Your task to perform on an android device: Search for "logitech g pro" on target.com, select the first entry, and add it to the cart. Image 0: 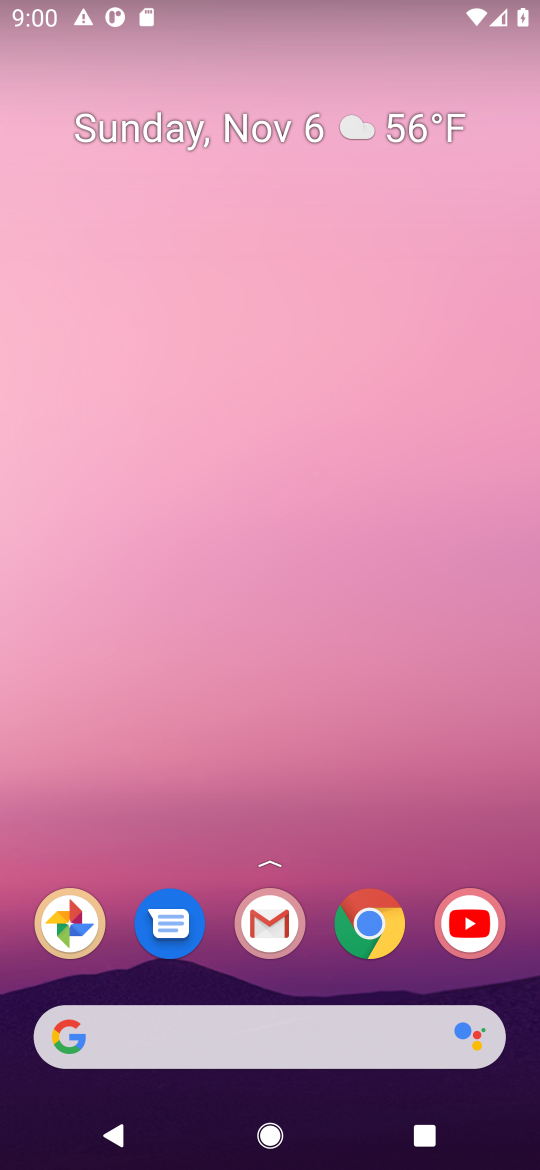
Step 0: click (378, 934)
Your task to perform on an android device: Search for "logitech g pro" on target.com, select the first entry, and add it to the cart. Image 1: 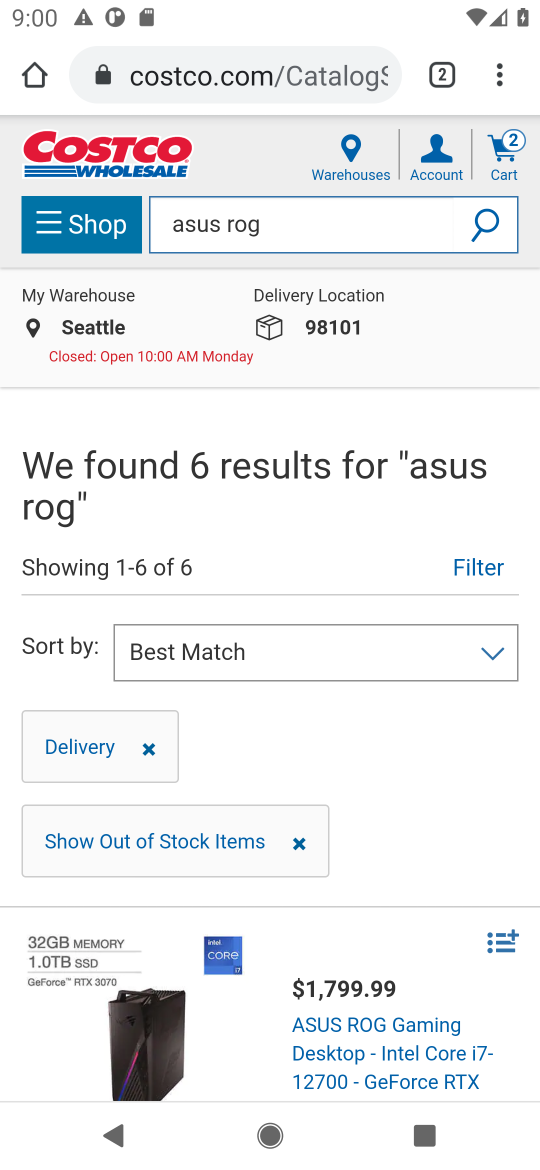
Step 1: drag from (384, 775) to (371, 573)
Your task to perform on an android device: Search for "logitech g pro" on target.com, select the first entry, and add it to the cart. Image 2: 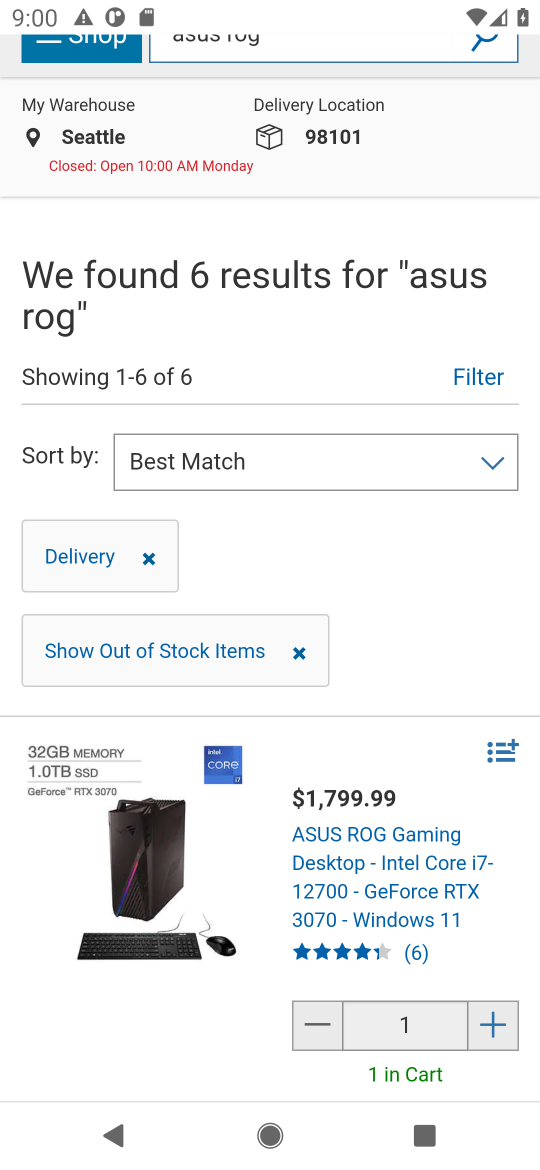
Step 2: click (376, 913)
Your task to perform on an android device: Search for "logitech g pro" on target.com, select the first entry, and add it to the cart. Image 3: 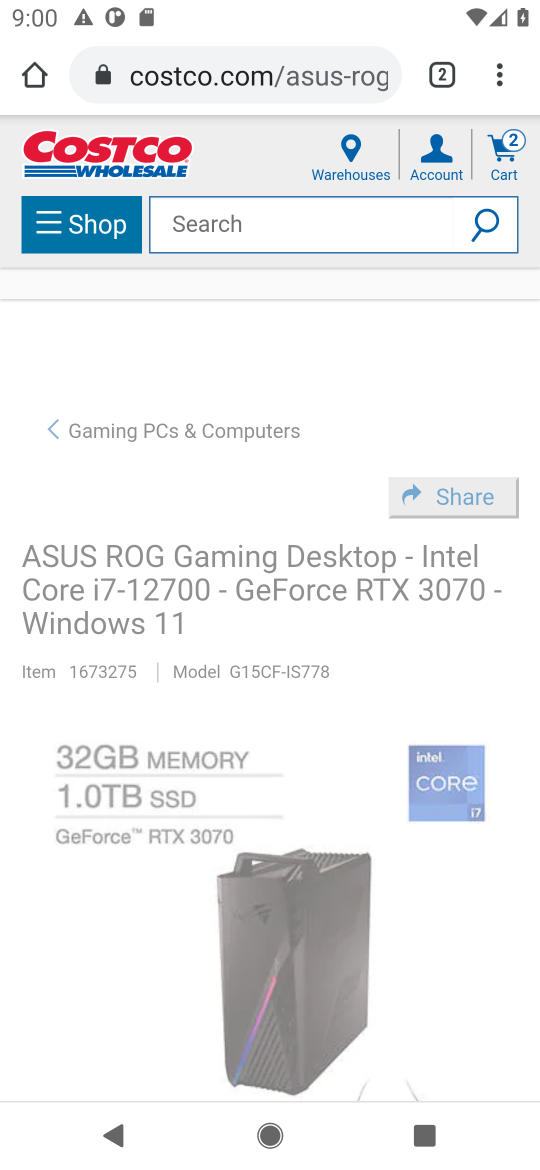
Step 3: click (286, 74)
Your task to perform on an android device: Search for "logitech g pro" on target.com, select the first entry, and add it to the cart. Image 4: 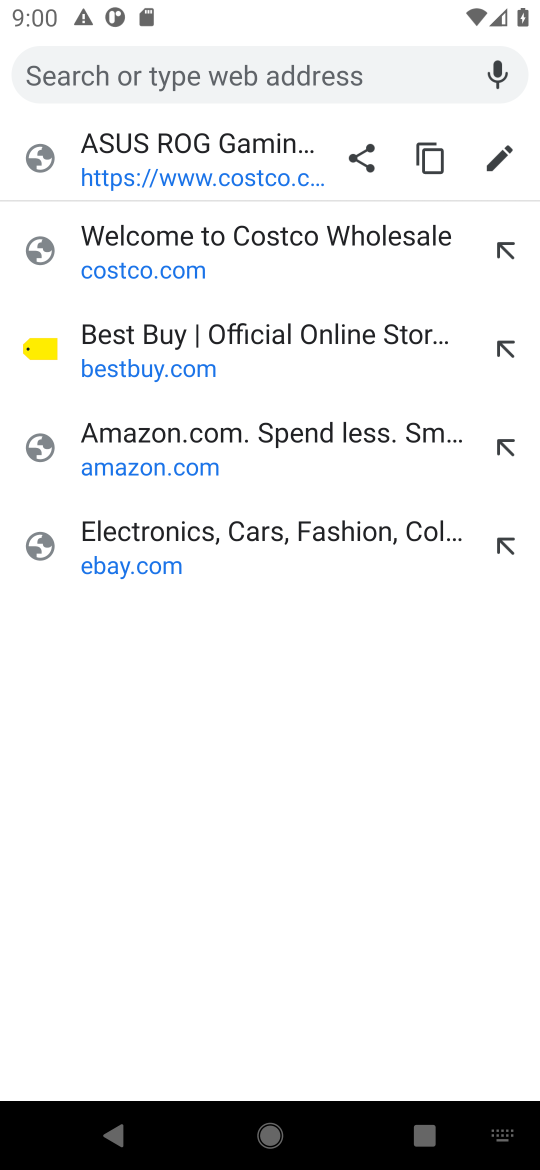
Step 4: type "target.com"
Your task to perform on an android device: Search for "logitech g pro" on target.com, select the first entry, and add it to the cart. Image 5: 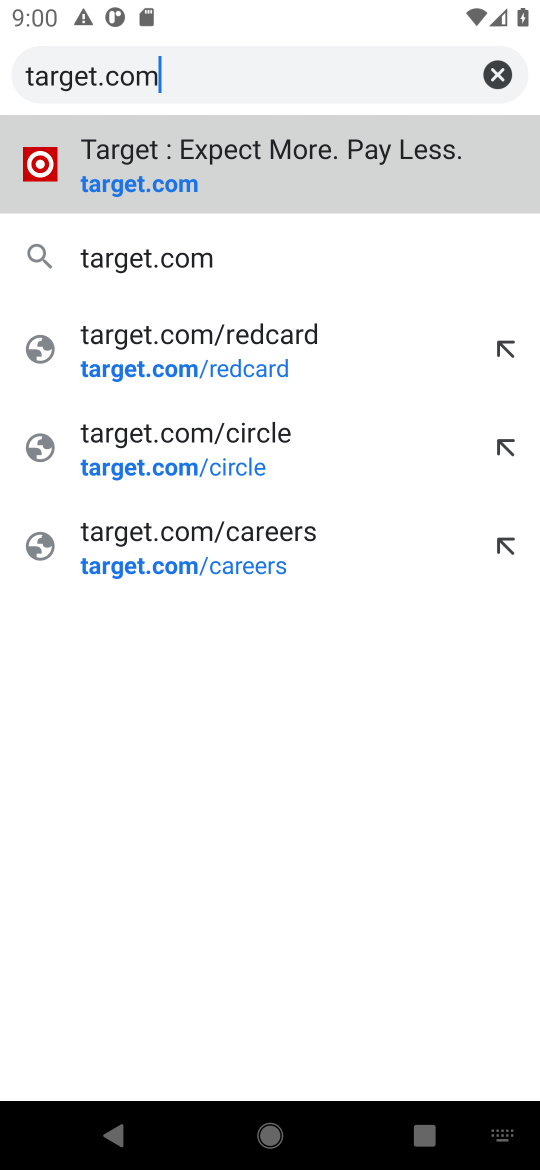
Step 5: click (108, 191)
Your task to perform on an android device: Search for "logitech g pro" on target.com, select the first entry, and add it to the cart. Image 6: 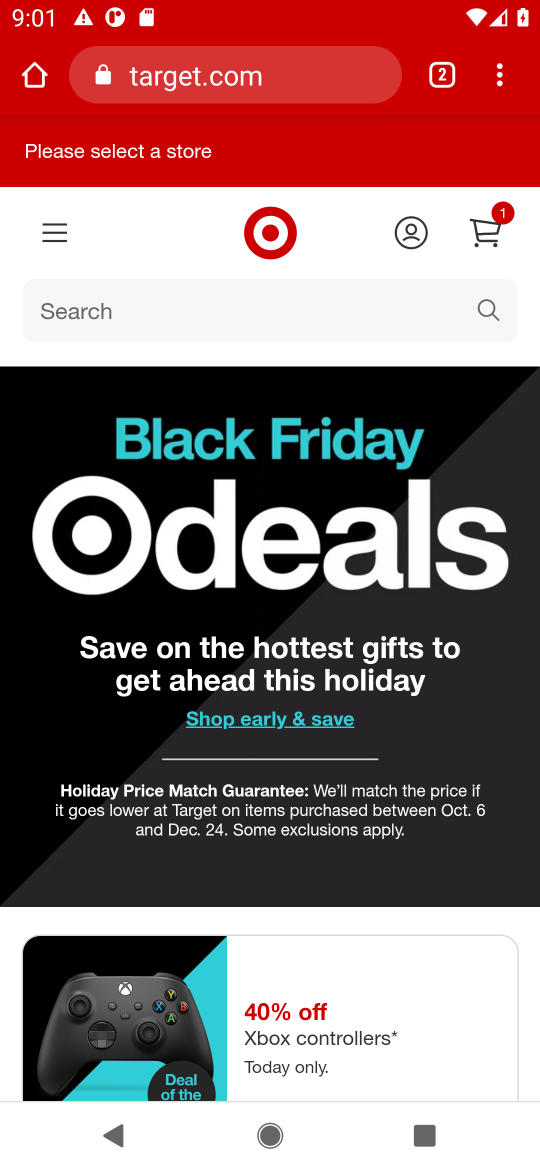
Step 6: click (489, 311)
Your task to perform on an android device: Search for "logitech g pro" on target.com, select the first entry, and add it to the cart. Image 7: 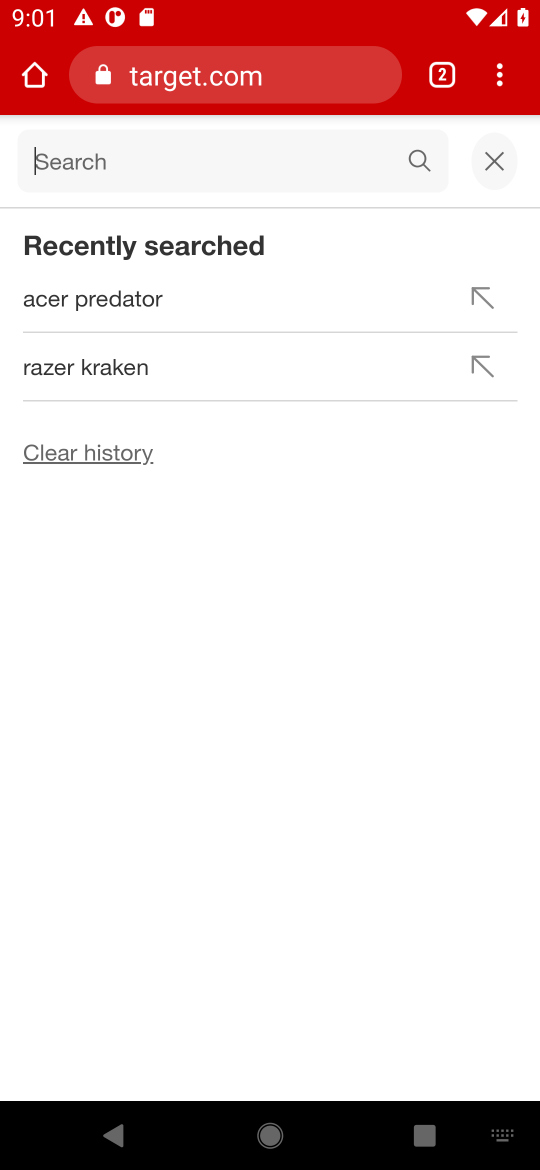
Step 7: type "logitech g pro"
Your task to perform on an android device: Search for "logitech g pro" on target.com, select the first entry, and add it to the cart. Image 8: 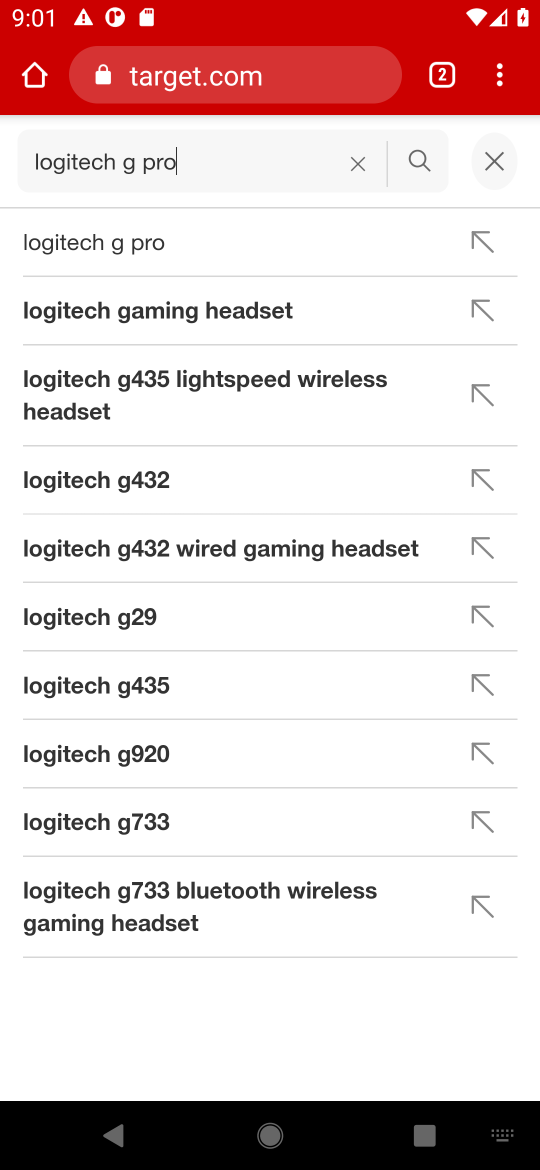
Step 8: click (70, 252)
Your task to perform on an android device: Search for "logitech g pro" on target.com, select the first entry, and add it to the cart. Image 9: 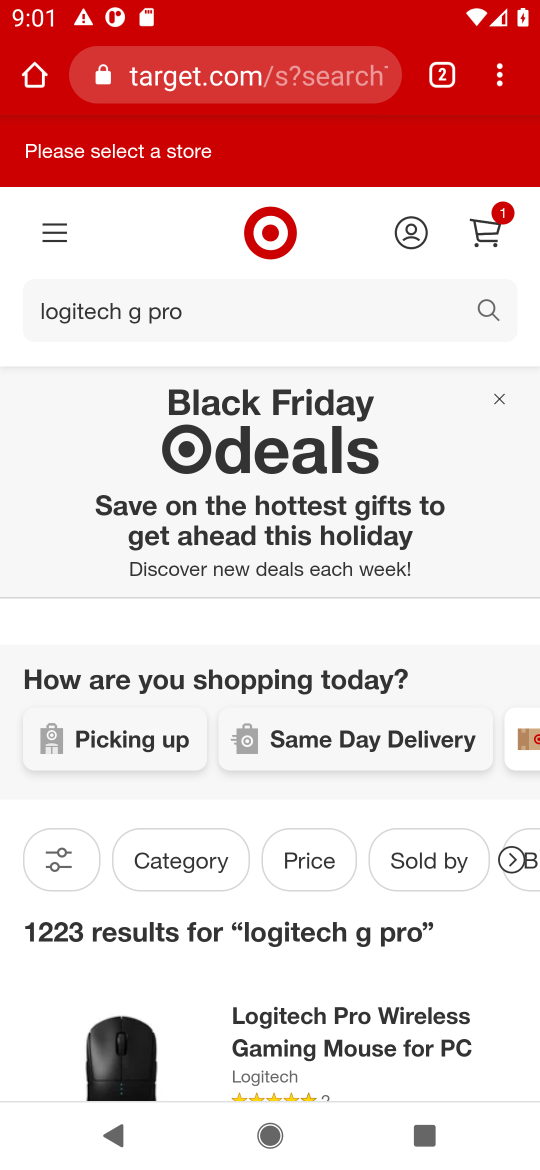
Step 9: task complete